Your task to perform on an android device: turn vacation reply on in the gmail app Image 0: 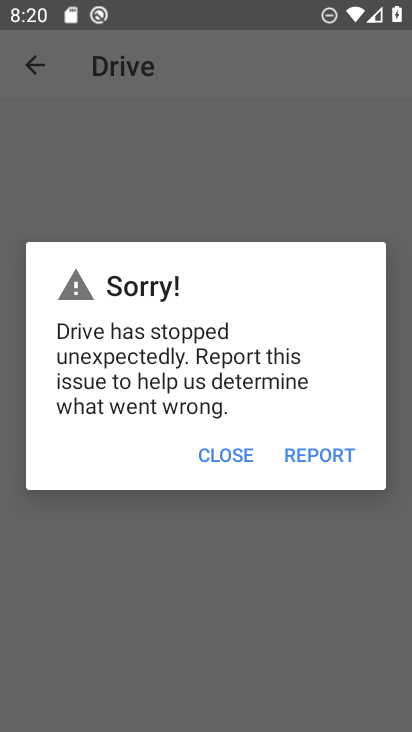
Step 0: press home button
Your task to perform on an android device: turn vacation reply on in the gmail app Image 1: 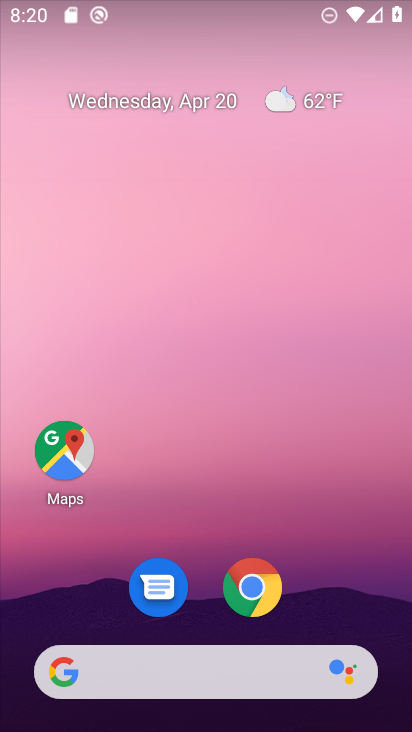
Step 1: drag from (325, 550) to (254, 47)
Your task to perform on an android device: turn vacation reply on in the gmail app Image 2: 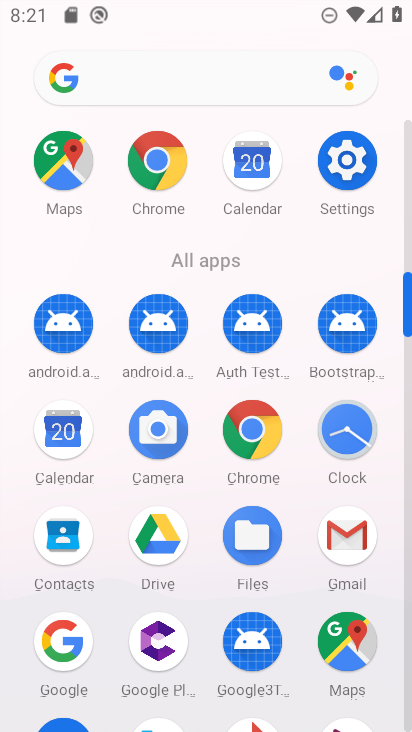
Step 2: click (339, 559)
Your task to perform on an android device: turn vacation reply on in the gmail app Image 3: 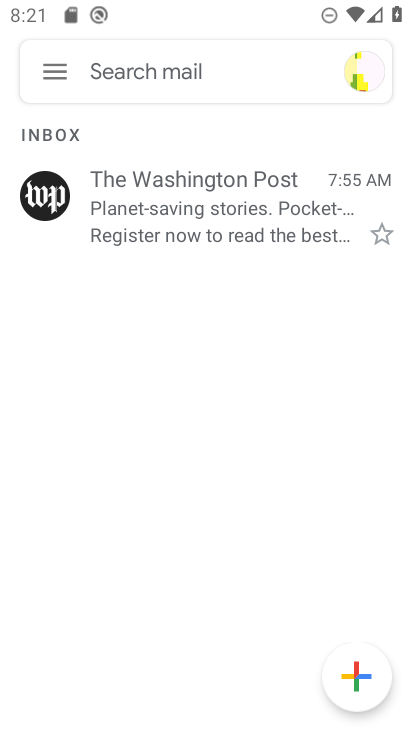
Step 3: click (56, 85)
Your task to perform on an android device: turn vacation reply on in the gmail app Image 4: 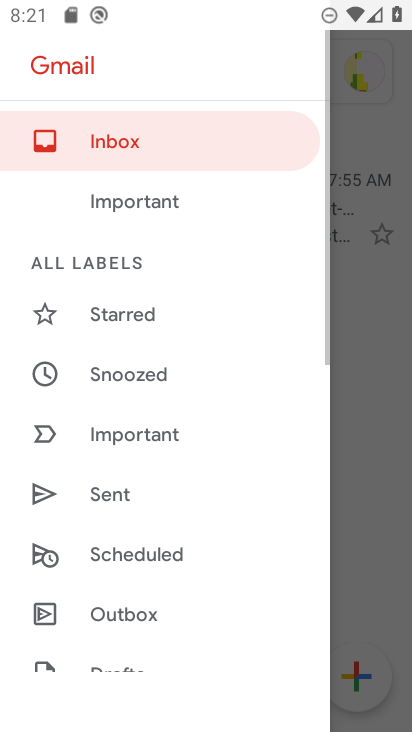
Step 4: drag from (148, 637) to (131, 101)
Your task to perform on an android device: turn vacation reply on in the gmail app Image 5: 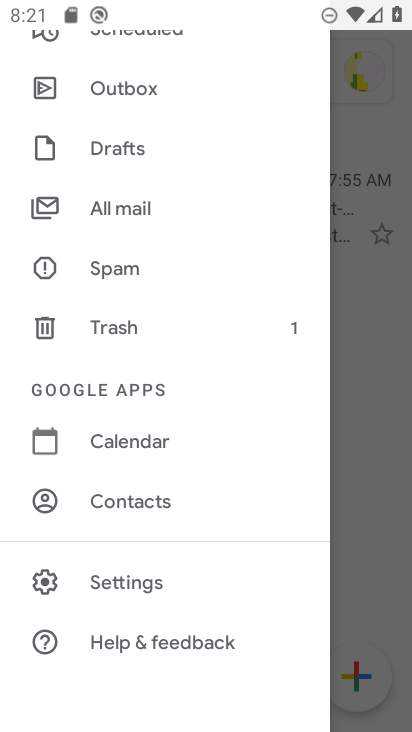
Step 5: click (133, 589)
Your task to perform on an android device: turn vacation reply on in the gmail app Image 6: 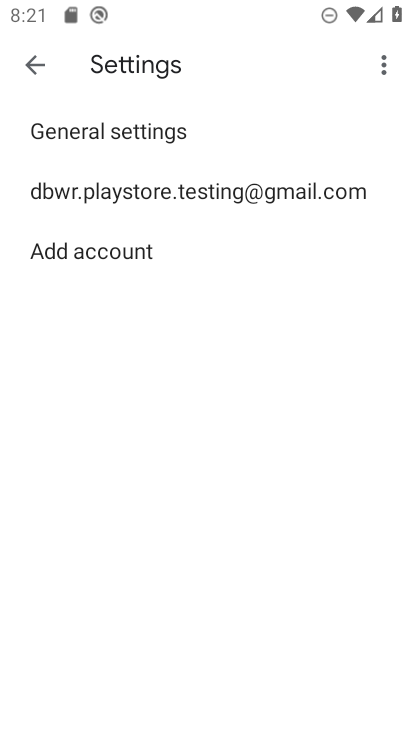
Step 6: click (152, 199)
Your task to perform on an android device: turn vacation reply on in the gmail app Image 7: 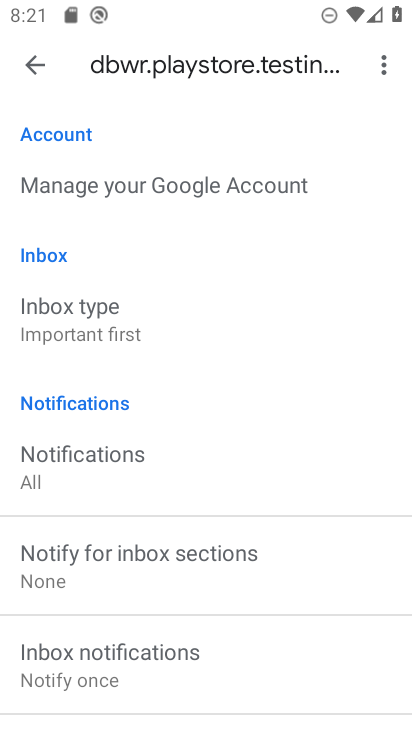
Step 7: drag from (187, 575) to (216, 80)
Your task to perform on an android device: turn vacation reply on in the gmail app Image 8: 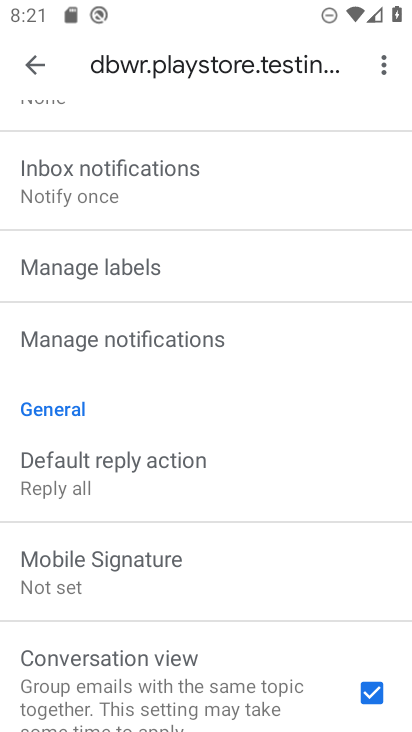
Step 8: drag from (183, 649) to (211, 122)
Your task to perform on an android device: turn vacation reply on in the gmail app Image 9: 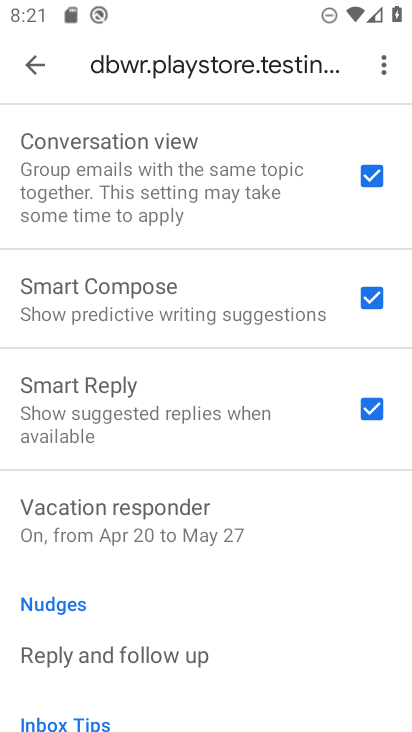
Step 9: click (198, 503)
Your task to perform on an android device: turn vacation reply on in the gmail app Image 10: 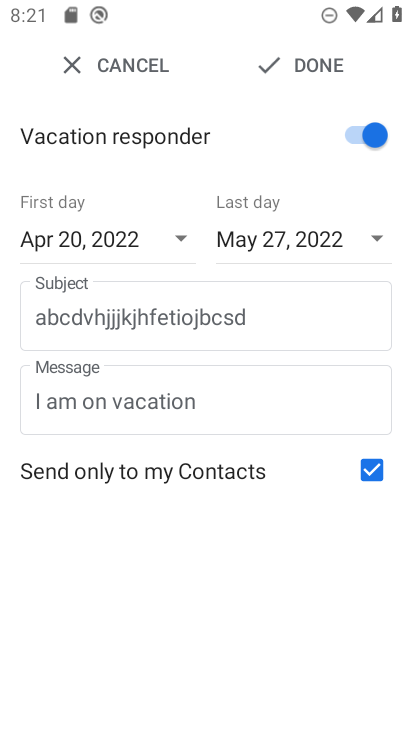
Step 10: click (335, 78)
Your task to perform on an android device: turn vacation reply on in the gmail app Image 11: 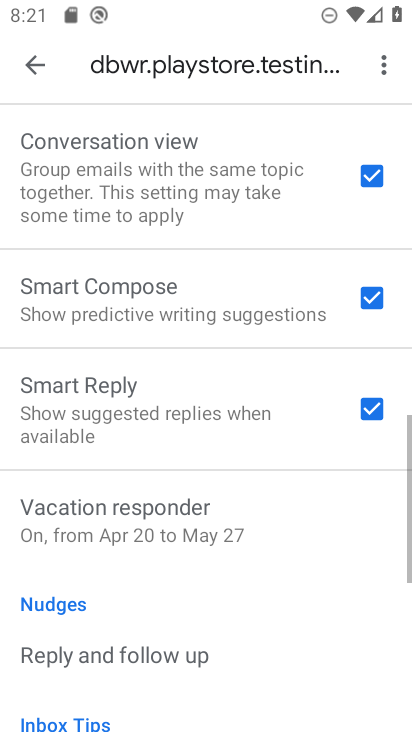
Step 11: task complete